Your task to perform on an android device: change the clock display to analog Image 0: 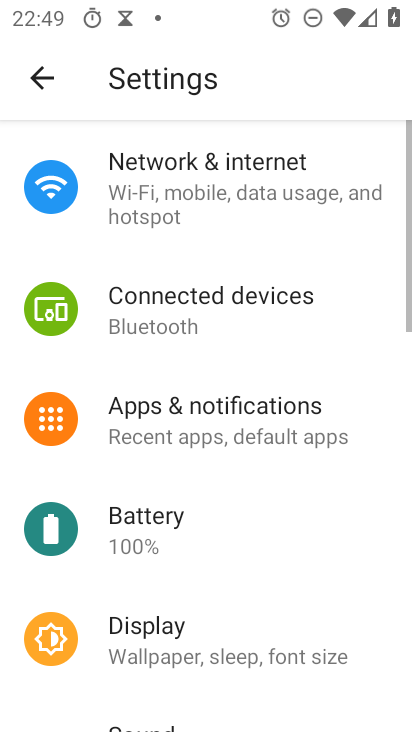
Step 0: press home button
Your task to perform on an android device: change the clock display to analog Image 1: 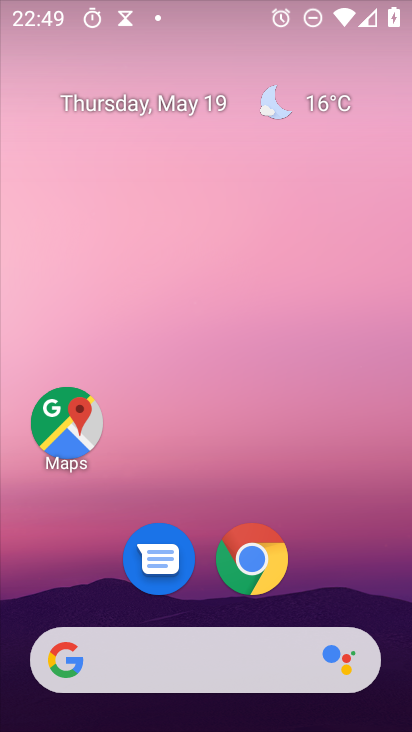
Step 1: drag from (224, 728) to (218, 164)
Your task to perform on an android device: change the clock display to analog Image 2: 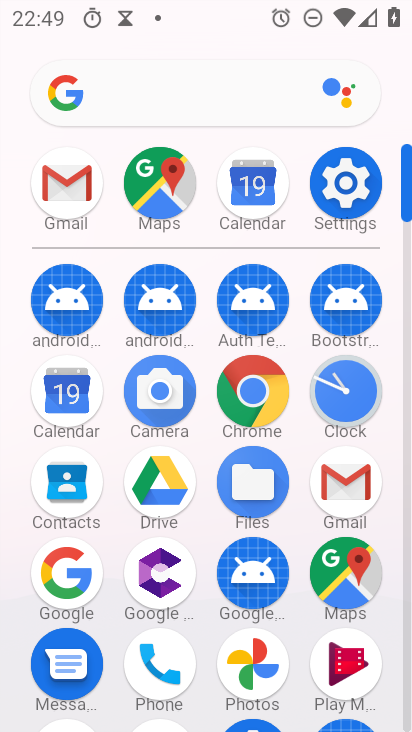
Step 2: click (348, 385)
Your task to perform on an android device: change the clock display to analog Image 3: 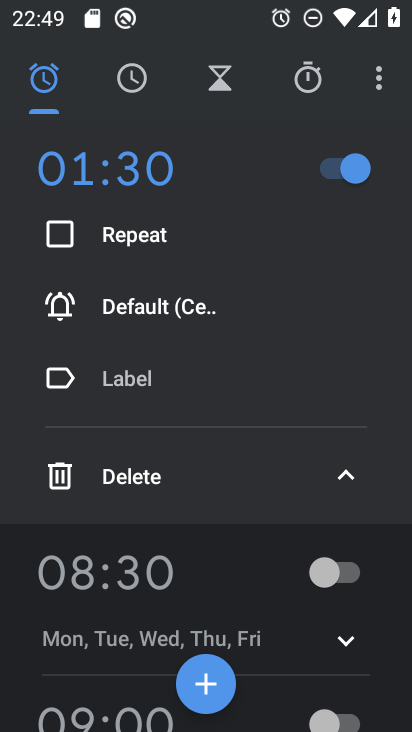
Step 3: click (376, 88)
Your task to perform on an android device: change the clock display to analog Image 4: 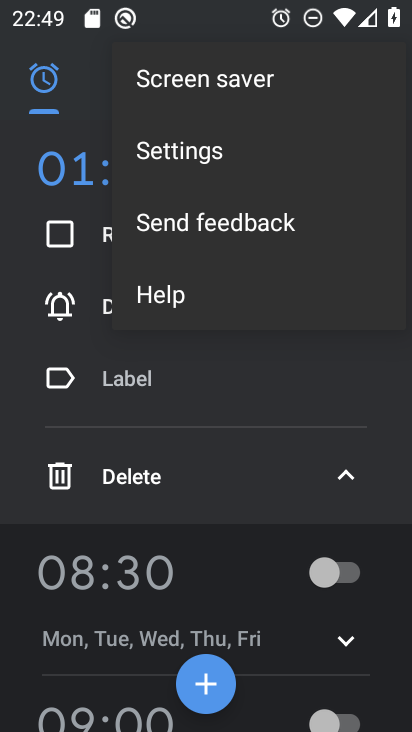
Step 4: click (224, 151)
Your task to perform on an android device: change the clock display to analog Image 5: 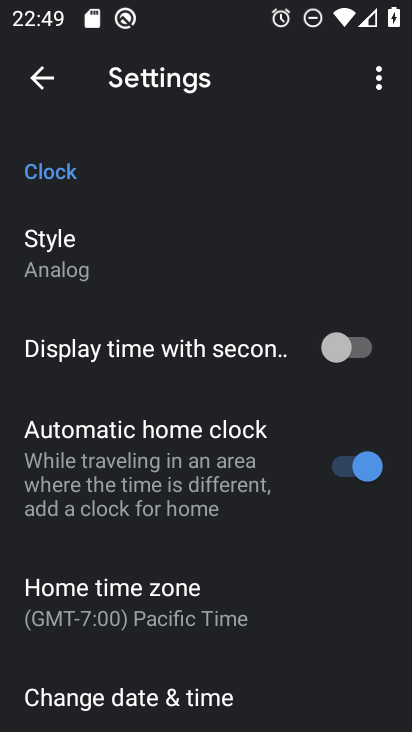
Step 5: task complete